Your task to perform on an android device: turn off priority inbox in the gmail app Image 0: 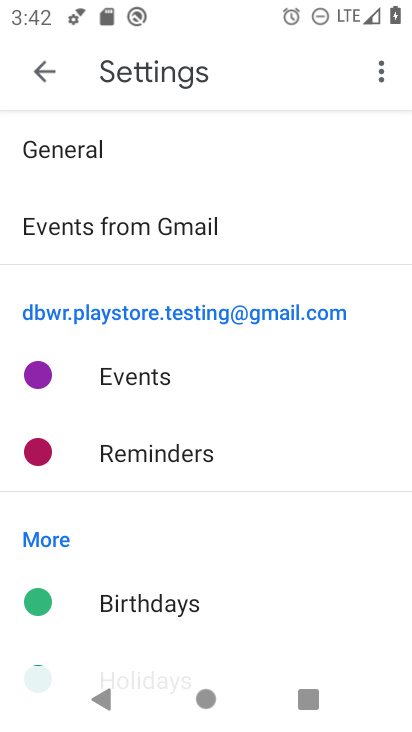
Step 0: press home button
Your task to perform on an android device: turn off priority inbox in the gmail app Image 1: 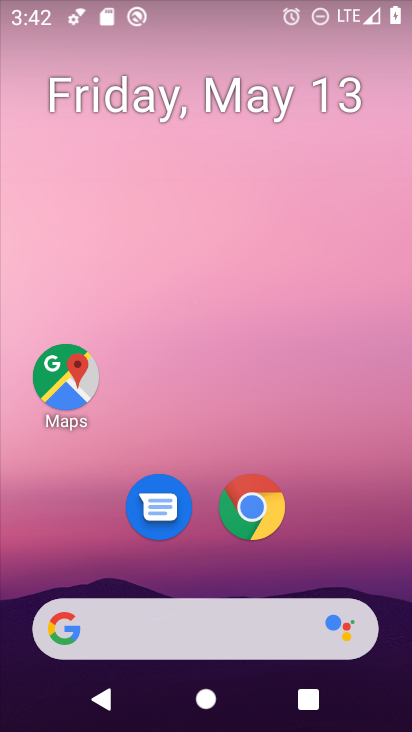
Step 1: drag from (325, 496) to (208, 62)
Your task to perform on an android device: turn off priority inbox in the gmail app Image 2: 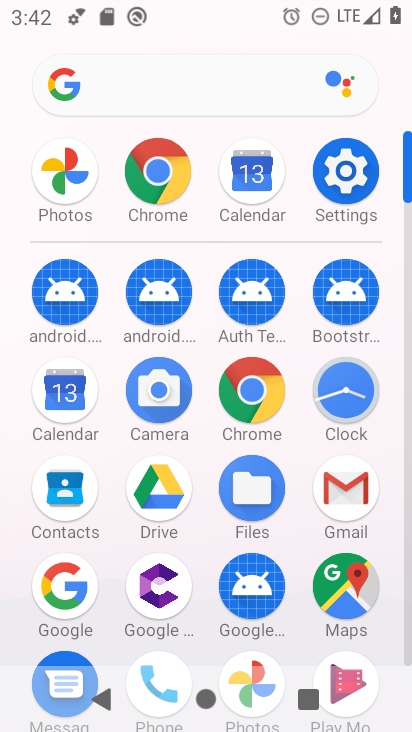
Step 2: click (337, 480)
Your task to perform on an android device: turn off priority inbox in the gmail app Image 3: 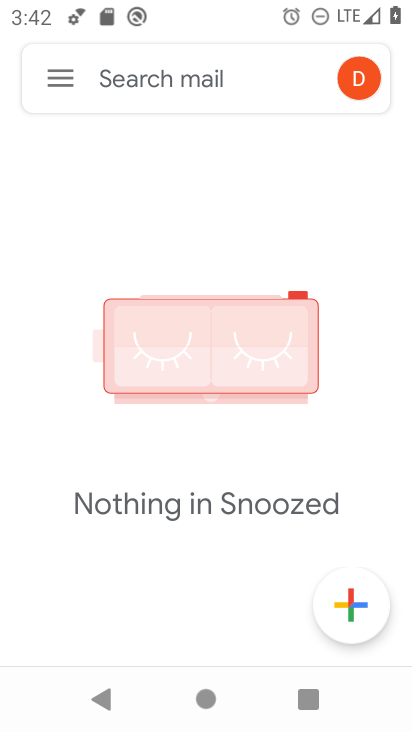
Step 3: click (53, 81)
Your task to perform on an android device: turn off priority inbox in the gmail app Image 4: 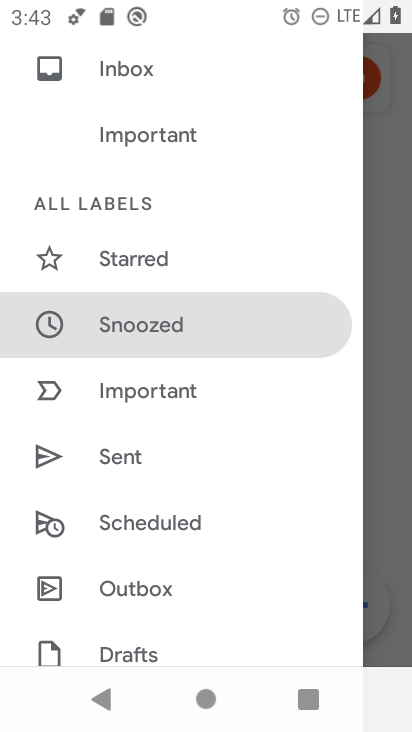
Step 4: drag from (229, 515) to (183, 111)
Your task to perform on an android device: turn off priority inbox in the gmail app Image 5: 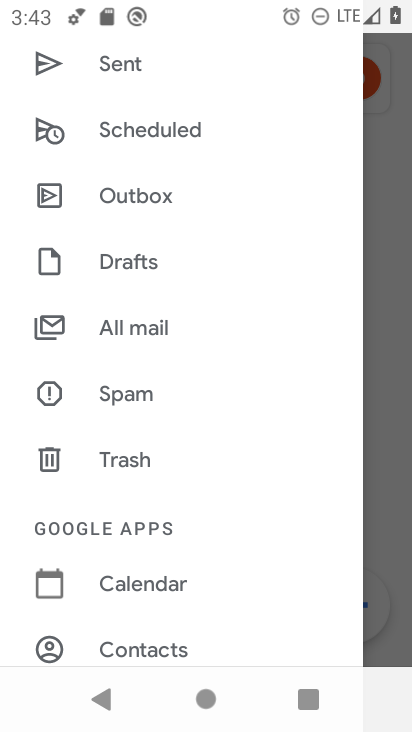
Step 5: drag from (233, 515) to (234, 244)
Your task to perform on an android device: turn off priority inbox in the gmail app Image 6: 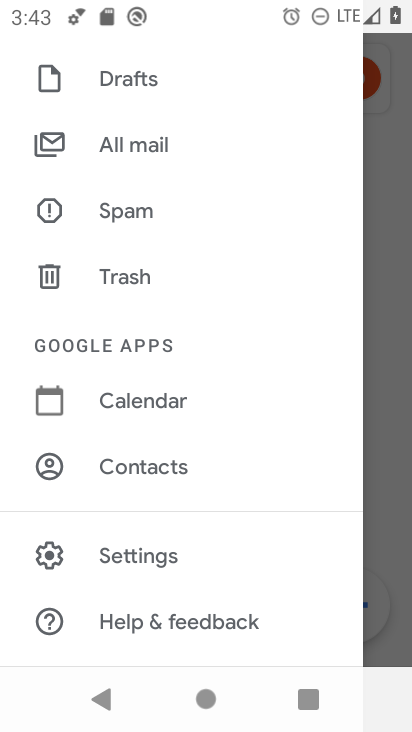
Step 6: drag from (266, 135) to (295, 616)
Your task to perform on an android device: turn off priority inbox in the gmail app Image 7: 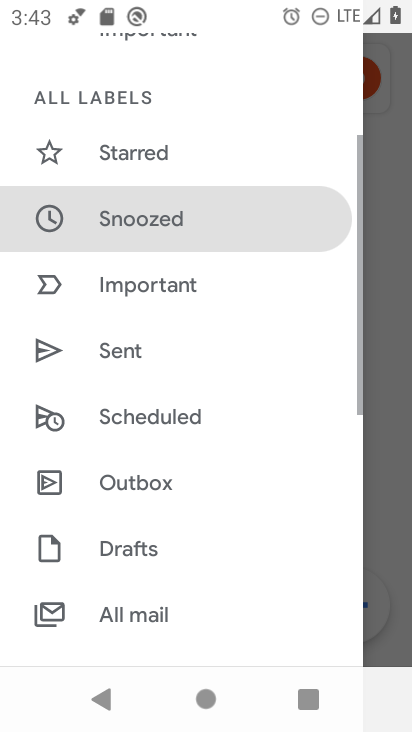
Step 7: drag from (324, 243) to (279, 498)
Your task to perform on an android device: turn off priority inbox in the gmail app Image 8: 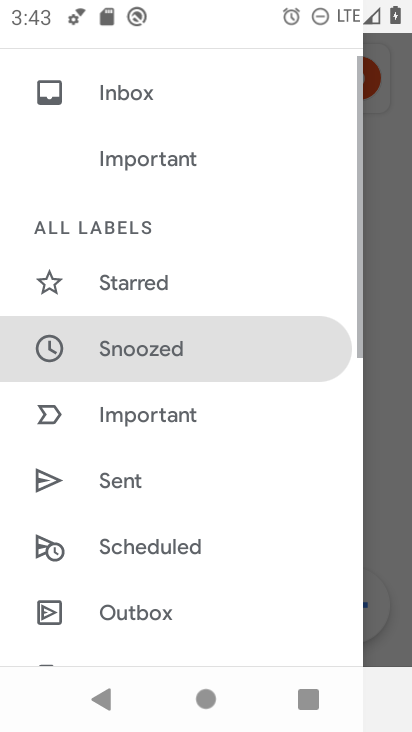
Step 8: click (155, 152)
Your task to perform on an android device: turn off priority inbox in the gmail app Image 9: 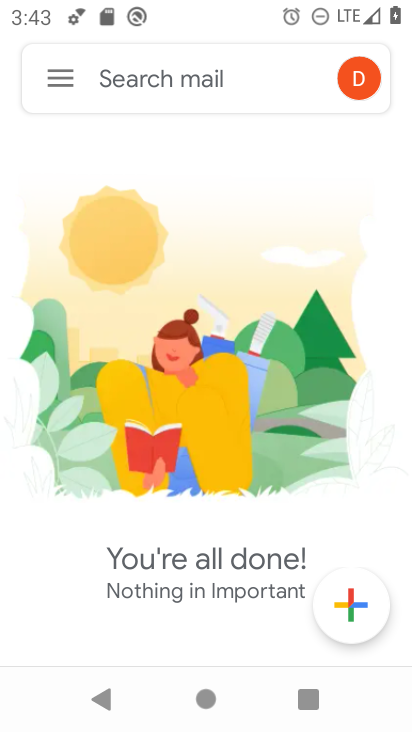
Step 9: click (60, 74)
Your task to perform on an android device: turn off priority inbox in the gmail app Image 10: 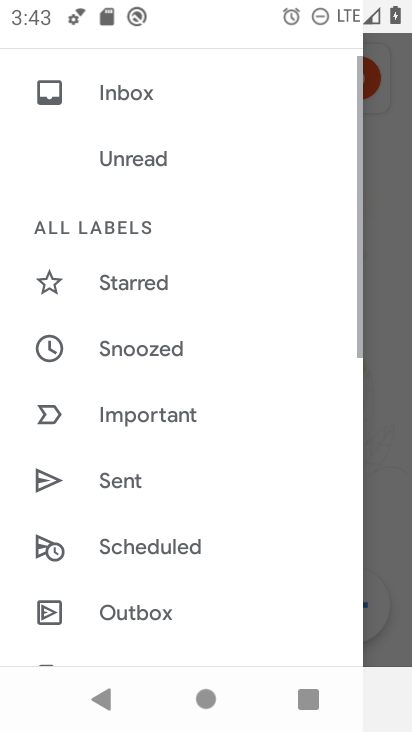
Step 10: click (78, 86)
Your task to perform on an android device: turn off priority inbox in the gmail app Image 11: 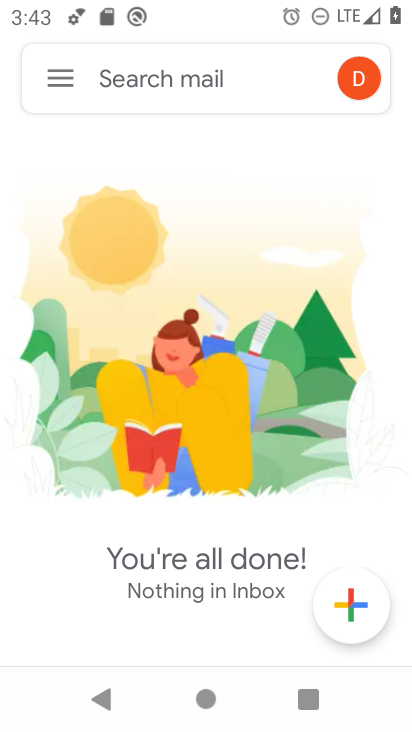
Step 11: task complete